Your task to perform on an android device: choose inbox layout in the gmail app Image 0: 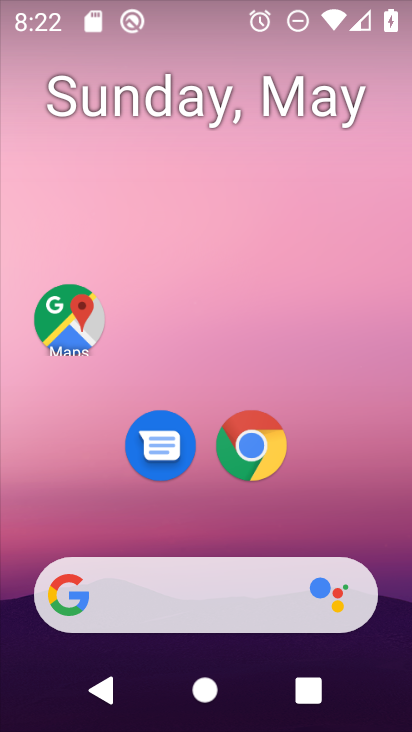
Step 0: drag from (244, 604) to (325, 148)
Your task to perform on an android device: choose inbox layout in the gmail app Image 1: 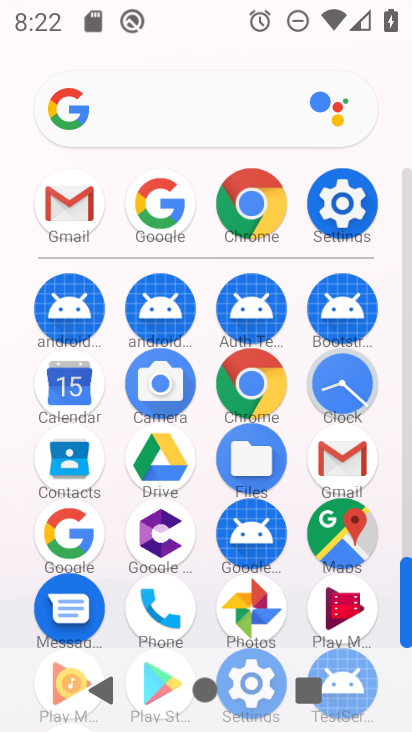
Step 1: click (358, 455)
Your task to perform on an android device: choose inbox layout in the gmail app Image 2: 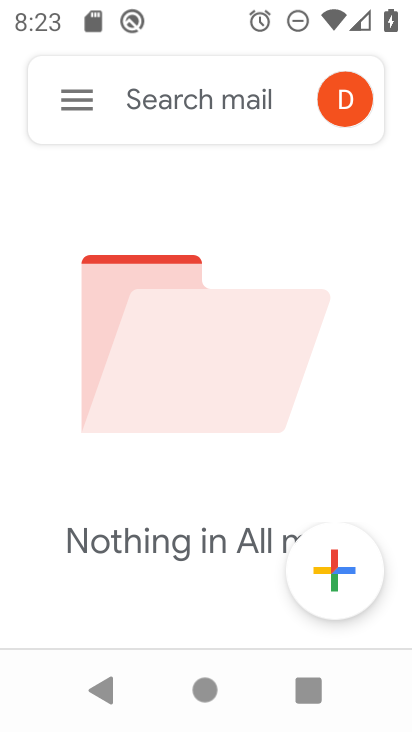
Step 2: click (75, 102)
Your task to perform on an android device: choose inbox layout in the gmail app Image 3: 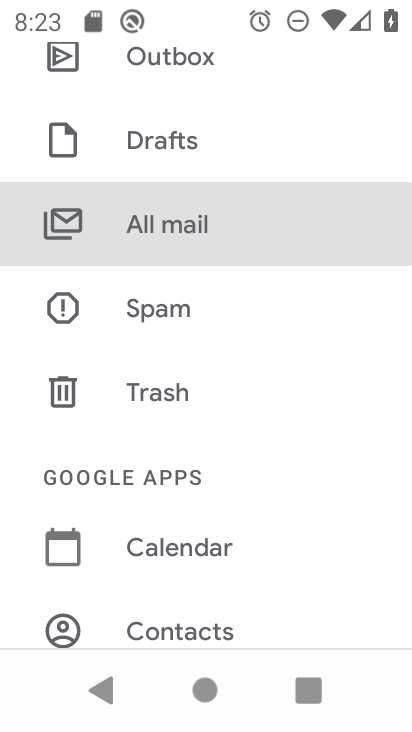
Step 3: drag from (261, 374) to (159, 636)
Your task to perform on an android device: choose inbox layout in the gmail app Image 4: 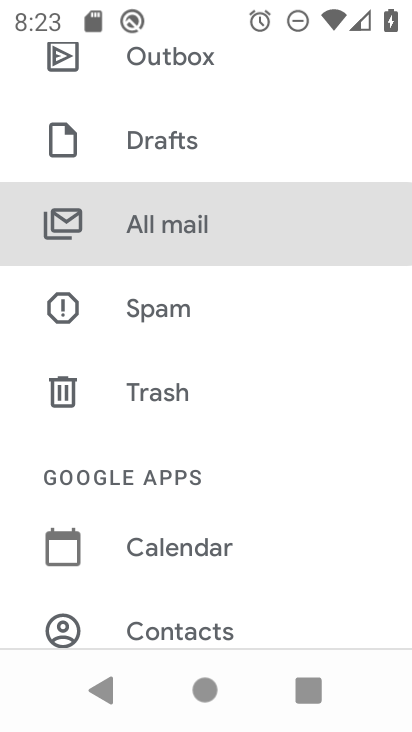
Step 4: drag from (202, 386) to (230, 640)
Your task to perform on an android device: choose inbox layout in the gmail app Image 5: 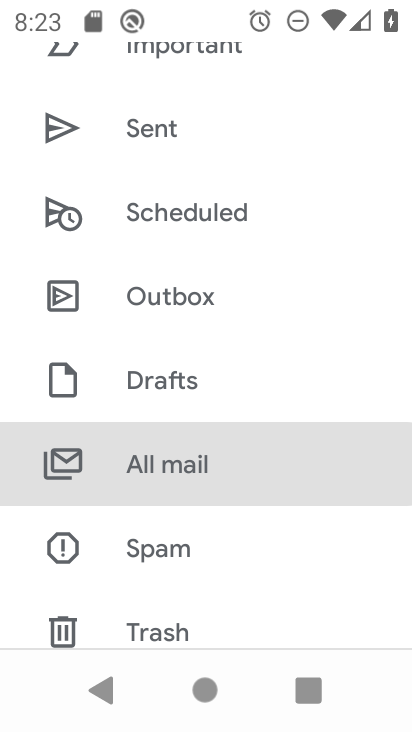
Step 5: drag from (226, 601) to (273, 136)
Your task to perform on an android device: choose inbox layout in the gmail app Image 6: 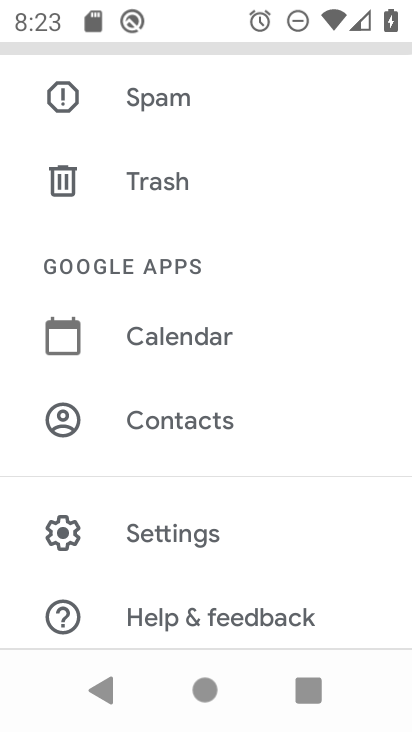
Step 6: drag from (223, 533) to (241, 270)
Your task to perform on an android device: choose inbox layout in the gmail app Image 7: 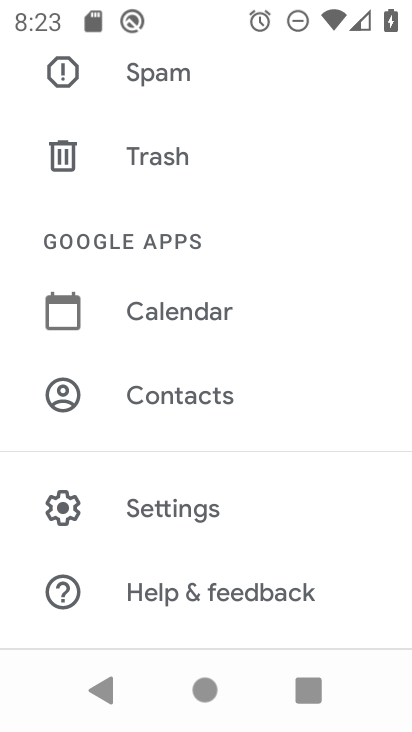
Step 7: click (177, 517)
Your task to perform on an android device: choose inbox layout in the gmail app Image 8: 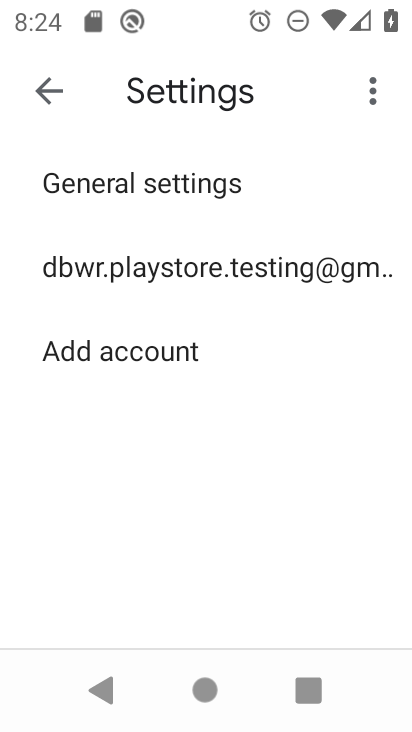
Step 8: click (109, 180)
Your task to perform on an android device: choose inbox layout in the gmail app Image 9: 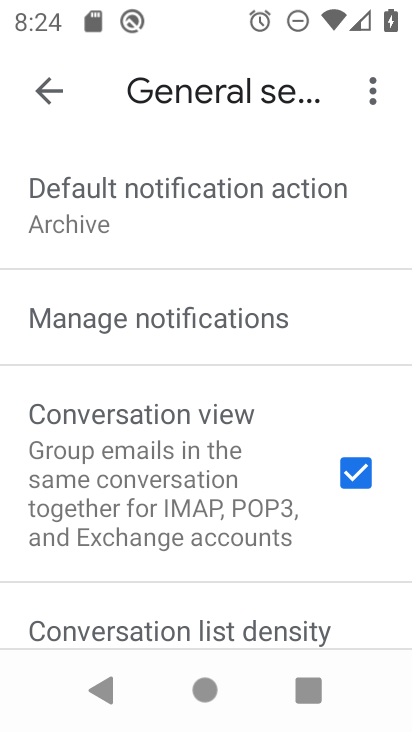
Step 9: task complete